Your task to perform on an android device: open app "PlayWell" (install if not already installed) Image 0: 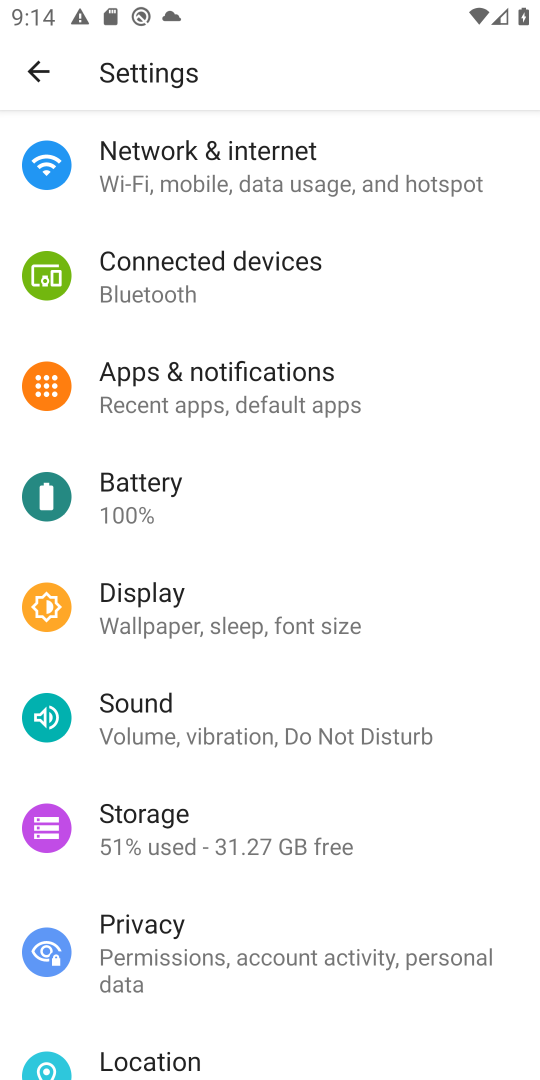
Step 0: press home button
Your task to perform on an android device: open app "PlayWell" (install if not already installed) Image 1: 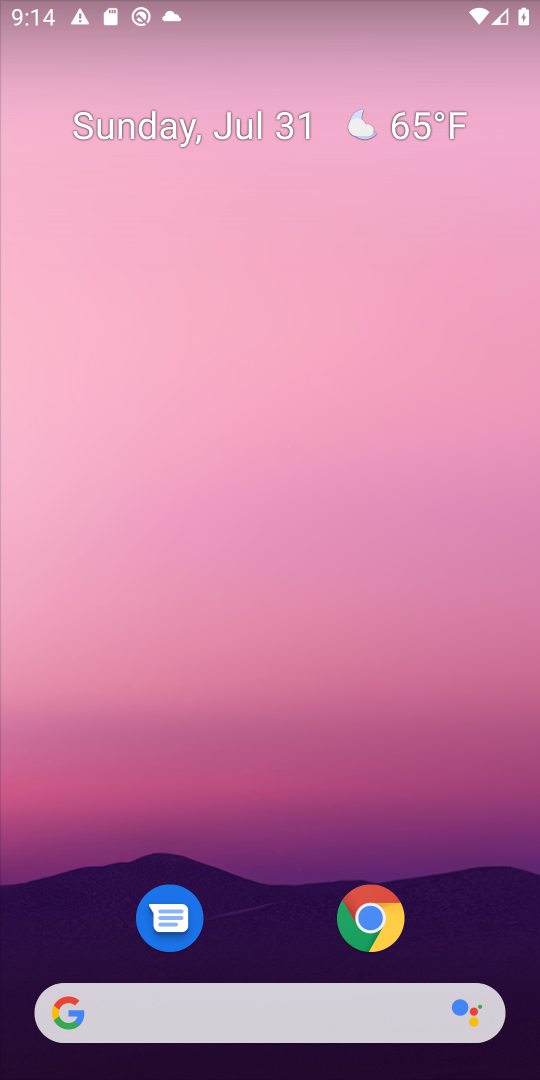
Step 1: drag from (315, 859) to (418, 28)
Your task to perform on an android device: open app "PlayWell" (install if not already installed) Image 2: 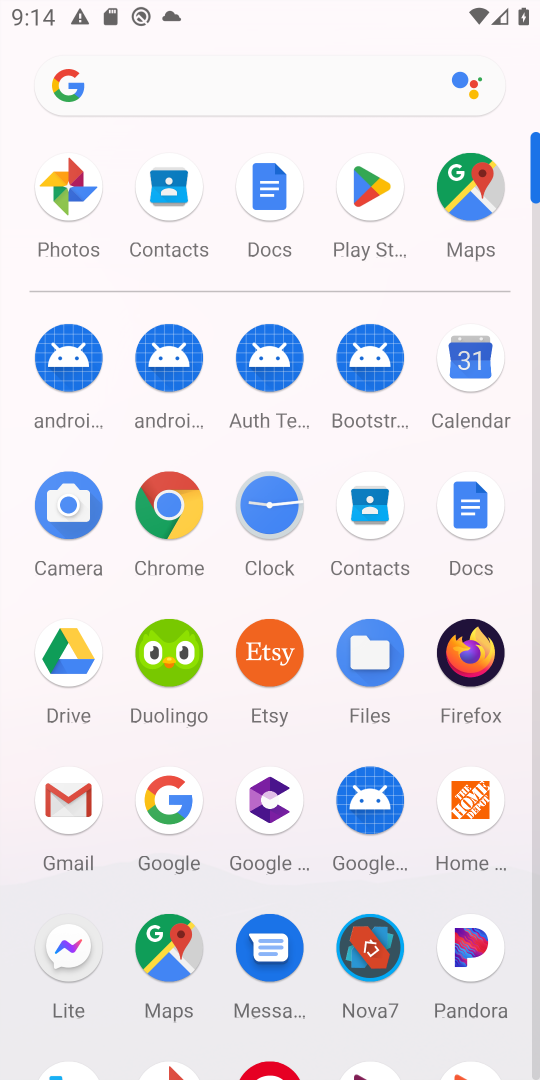
Step 2: click (369, 183)
Your task to perform on an android device: open app "PlayWell" (install if not already installed) Image 3: 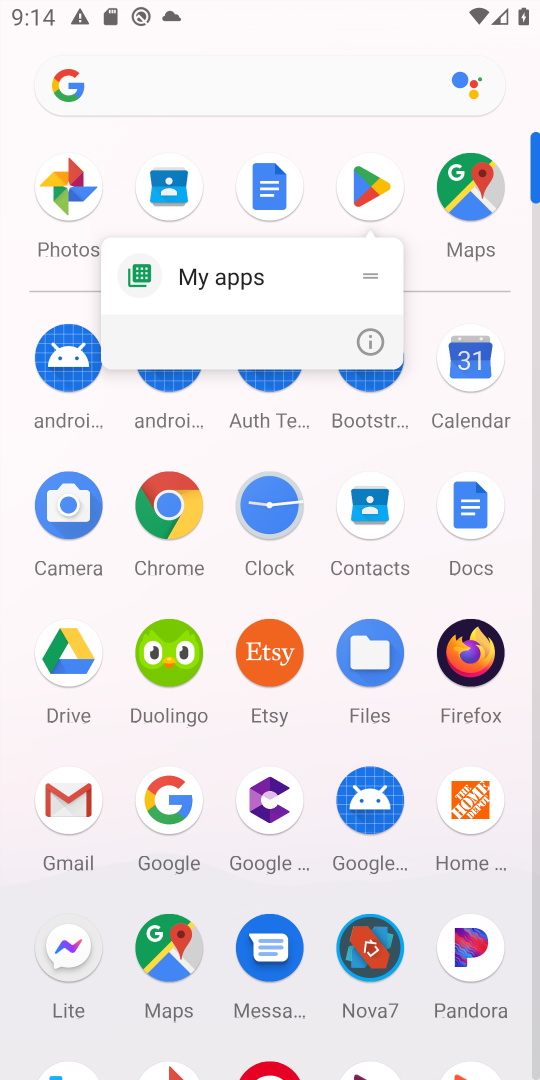
Step 3: click (369, 183)
Your task to perform on an android device: open app "PlayWell" (install if not already installed) Image 4: 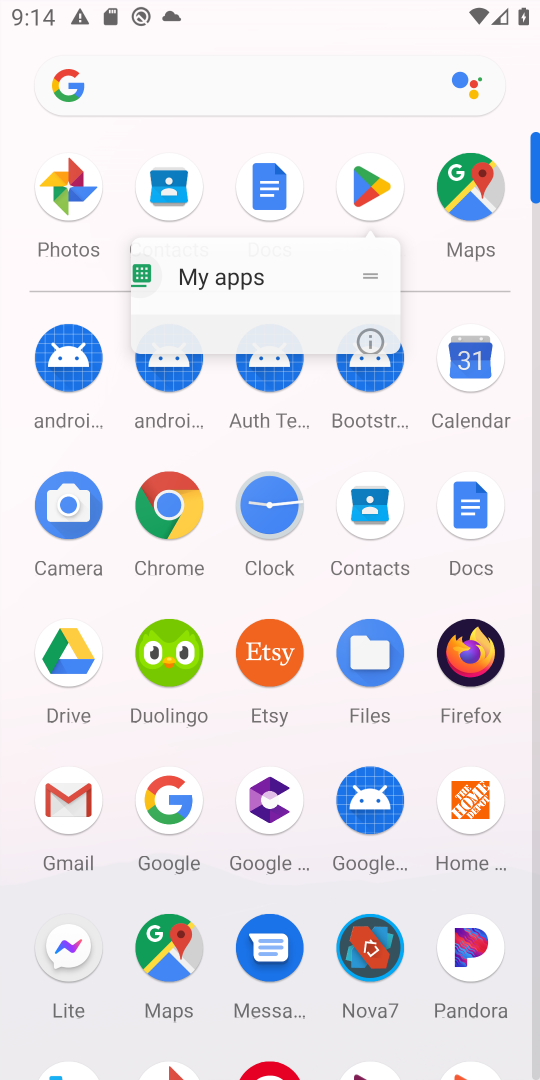
Step 4: click (369, 183)
Your task to perform on an android device: open app "PlayWell" (install if not already installed) Image 5: 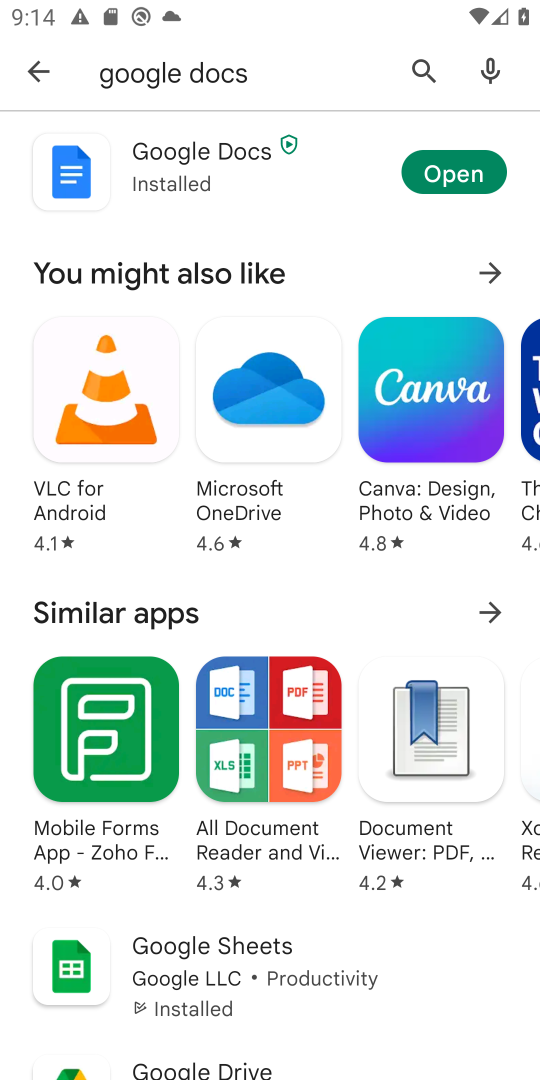
Step 5: click (416, 72)
Your task to perform on an android device: open app "PlayWell" (install if not already installed) Image 6: 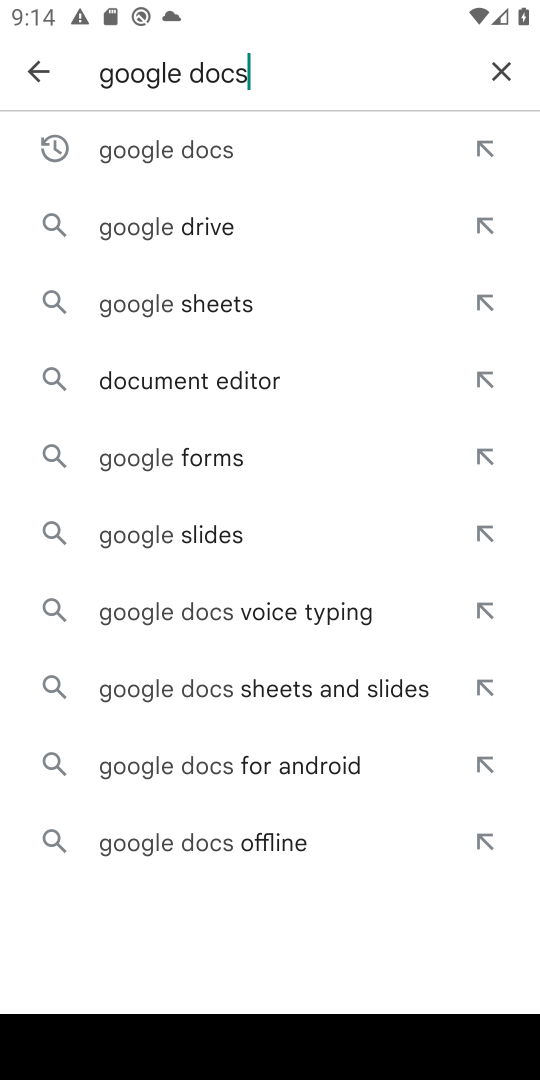
Step 6: click (499, 69)
Your task to perform on an android device: open app "PlayWell" (install if not already installed) Image 7: 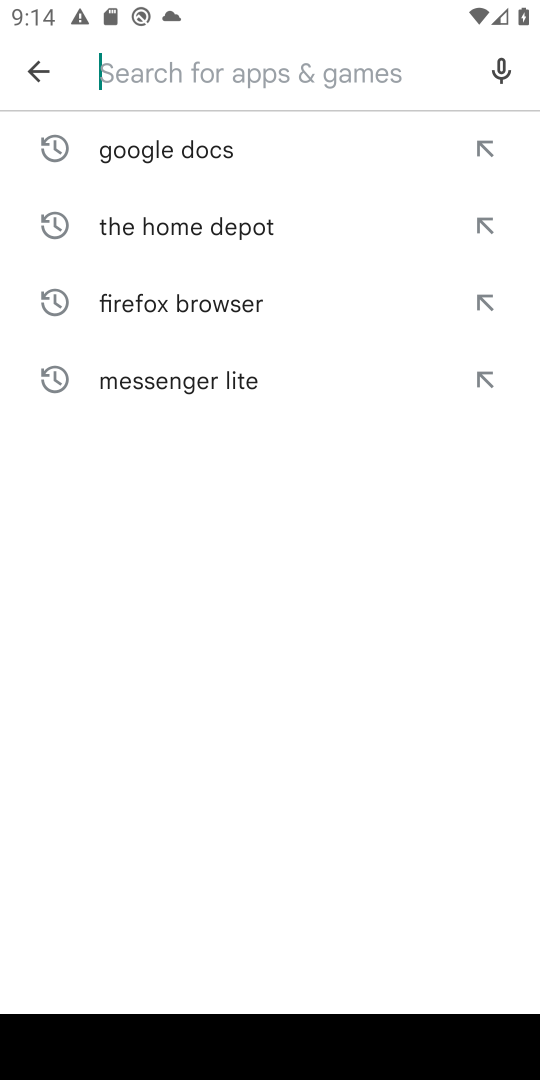
Step 7: type "PlayWell"
Your task to perform on an android device: open app "PlayWell" (install if not already installed) Image 8: 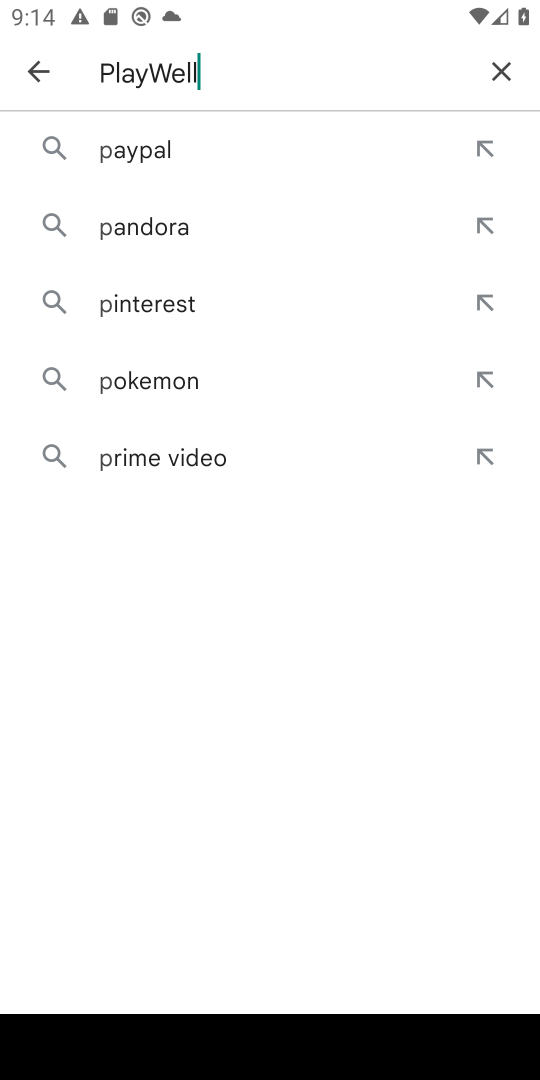
Step 8: type ""
Your task to perform on an android device: open app "PlayWell" (install if not already installed) Image 9: 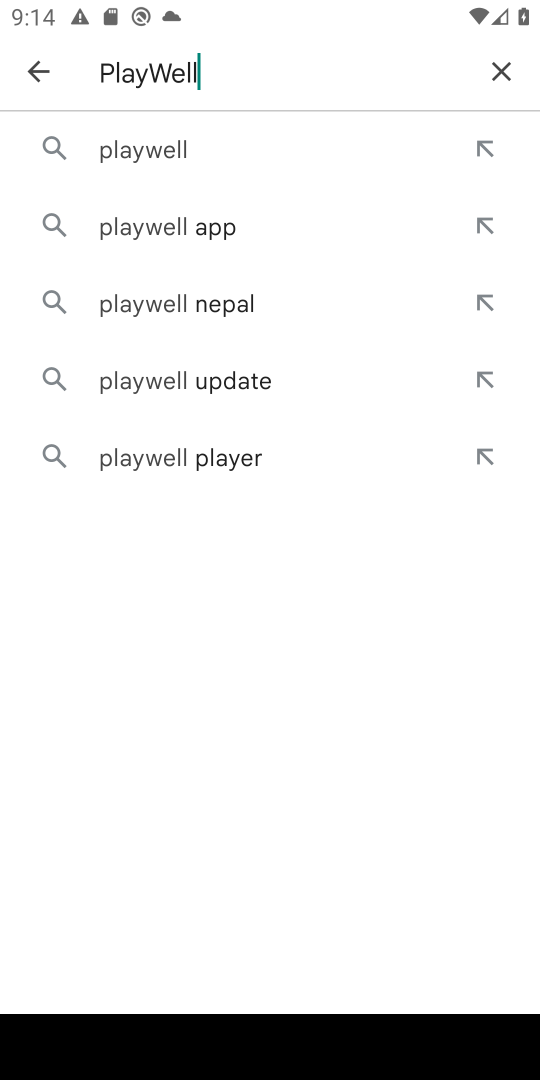
Step 9: click (181, 142)
Your task to perform on an android device: open app "PlayWell" (install if not already installed) Image 10: 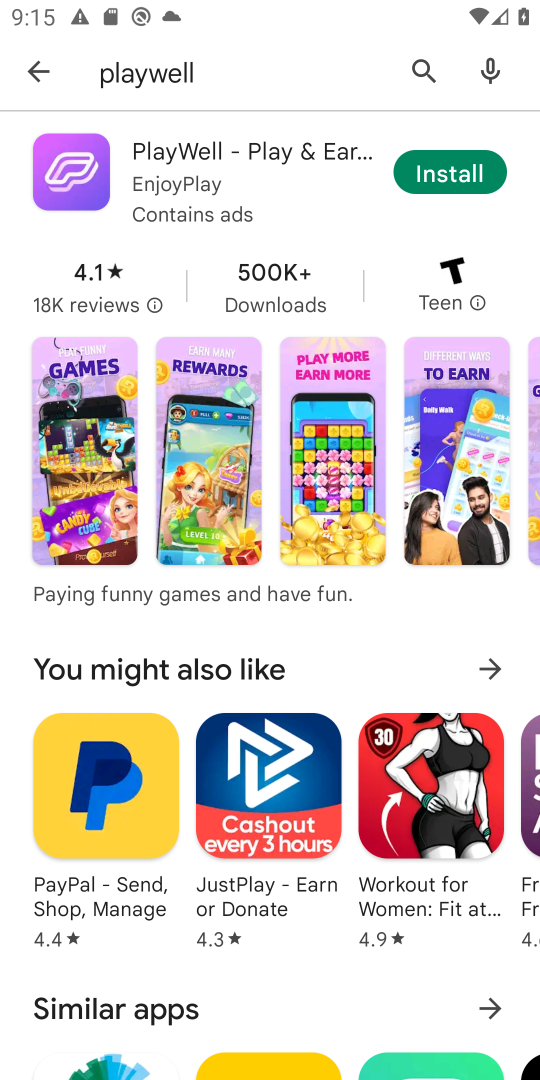
Step 10: click (466, 167)
Your task to perform on an android device: open app "PlayWell" (install if not already installed) Image 11: 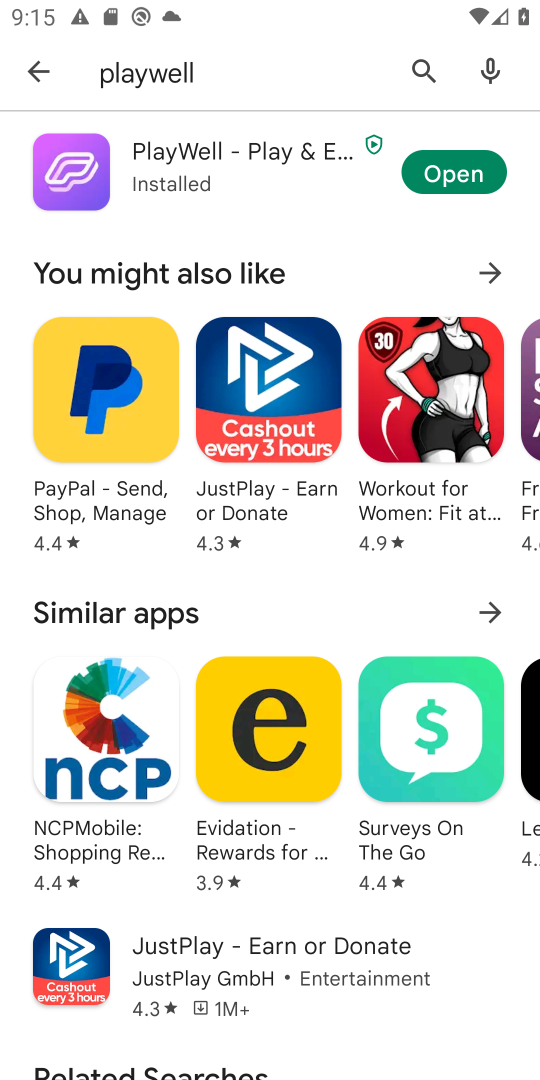
Step 11: click (447, 177)
Your task to perform on an android device: open app "PlayWell" (install if not already installed) Image 12: 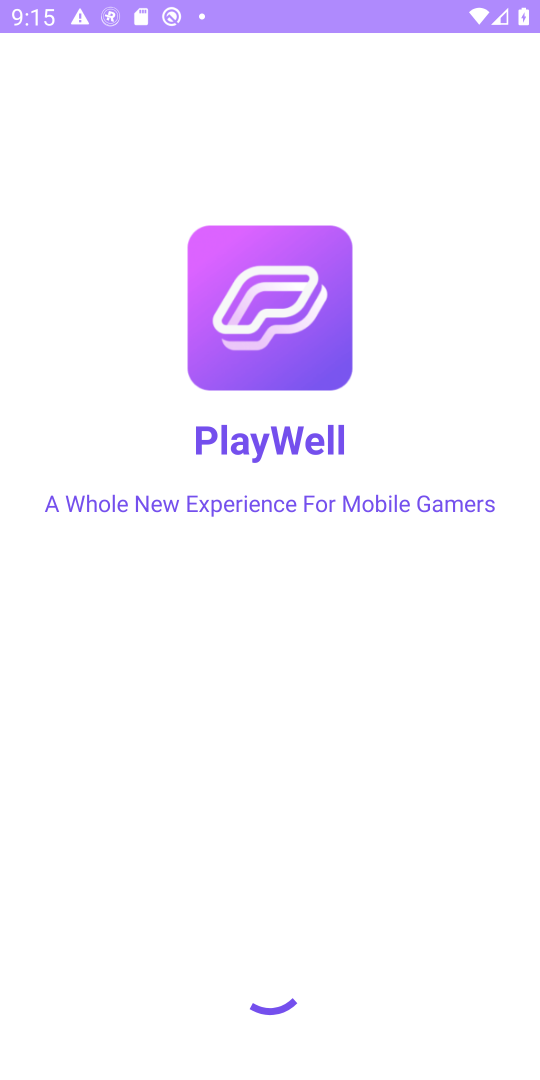
Step 12: task complete